Your task to perform on an android device: set the timer Image 0: 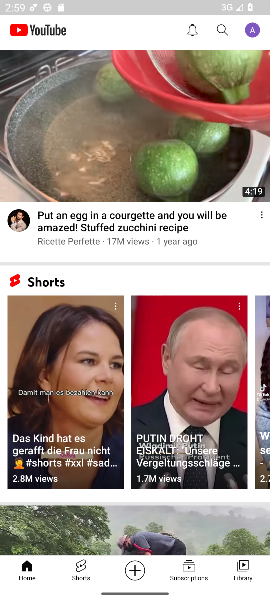
Step 0: press home button
Your task to perform on an android device: set the timer Image 1: 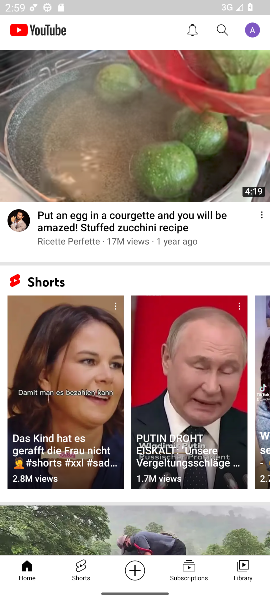
Step 1: press home button
Your task to perform on an android device: set the timer Image 2: 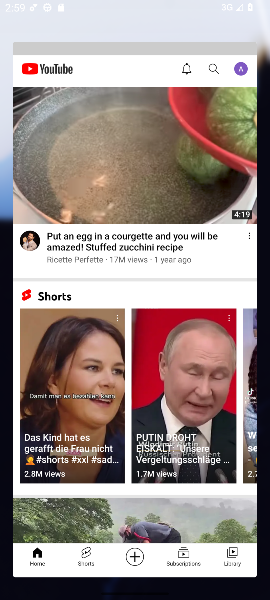
Step 2: press home button
Your task to perform on an android device: set the timer Image 3: 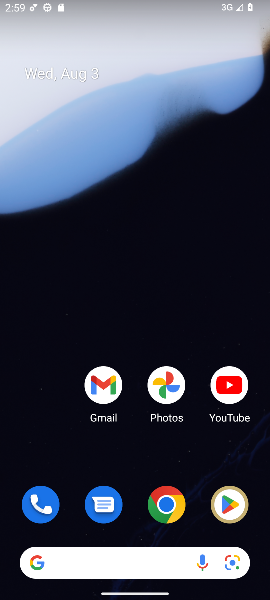
Step 3: drag from (128, 450) to (152, 31)
Your task to perform on an android device: set the timer Image 4: 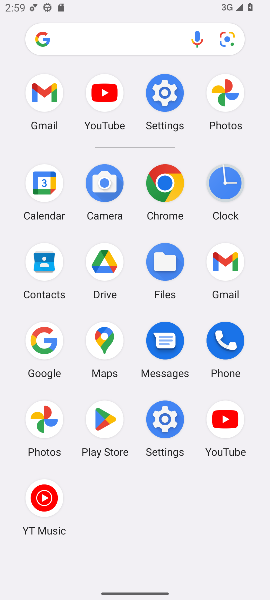
Step 4: click (229, 179)
Your task to perform on an android device: set the timer Image 5: 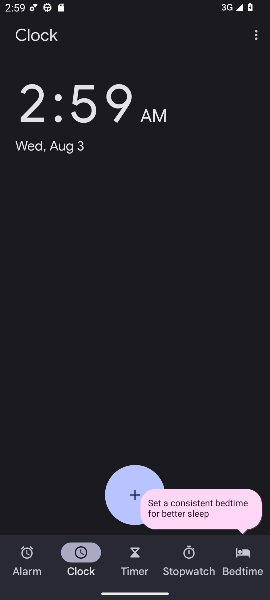
Step 5: click (137, 554)
Your task to perform on an android device: set the timer Image 6: 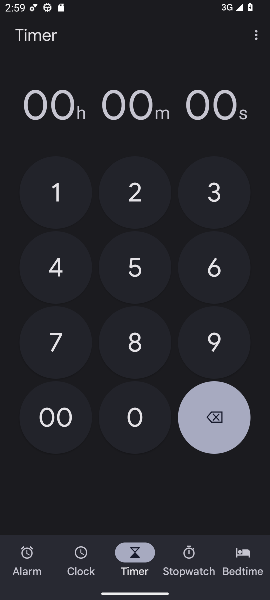
Step 6: click (142, 273)
Your task to perform on an android device: set the timer Image 7: 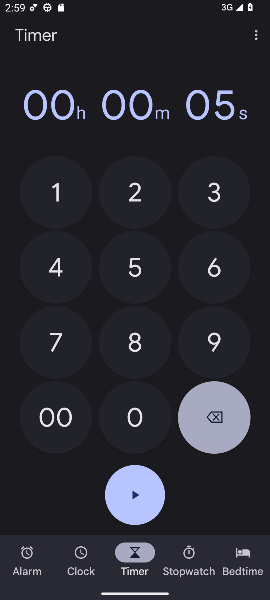
Step 7: task complete